Your task to perform on an android device: Open Chrome and go to settings Image 0: 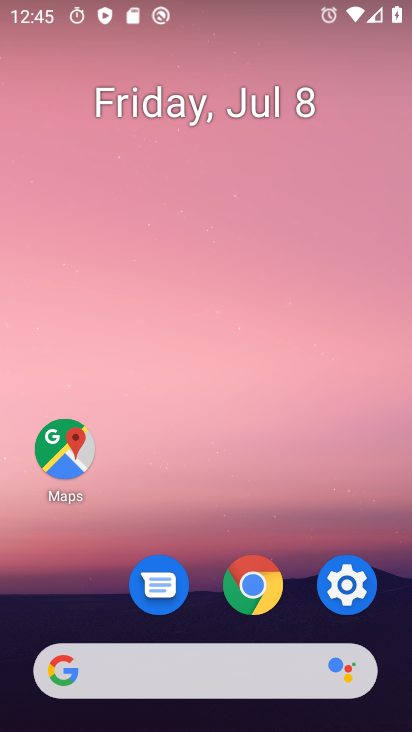
Step 0: click (275, 591)
Your task to perform on an android device: Open Chrome and go to settings Image 1: 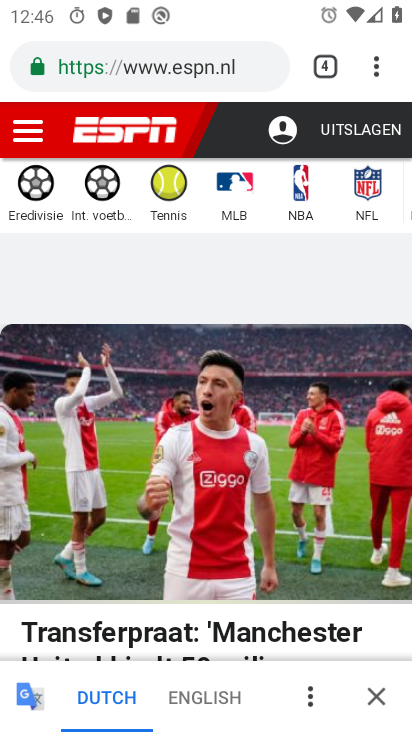
Step 1: click (377, 59)
Your task to perform on an android device: Open Chrome and go to settings Image 2: 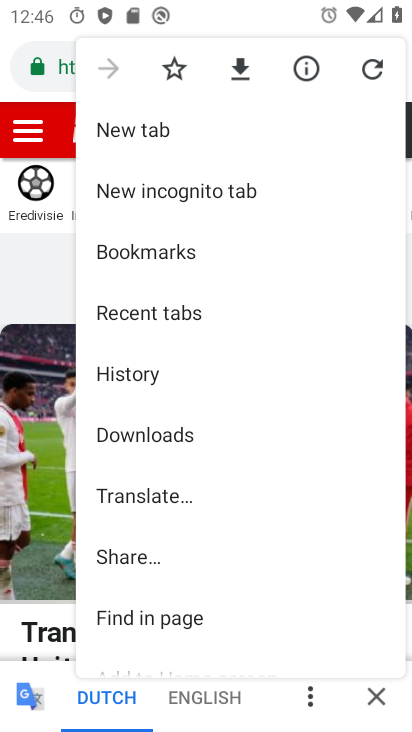
Step 2: drag from (280, 411) to (257, 290)
Your task to perform on an android device: Open Chrome and go to settings Image 3: 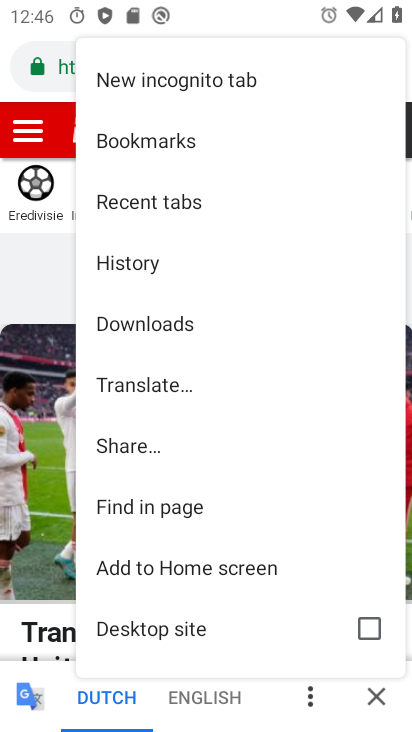
Step 3: drag from (155, 605) to (249, 411)
Your task to perform on an android device: Open Chrome and go to settings Image 4: 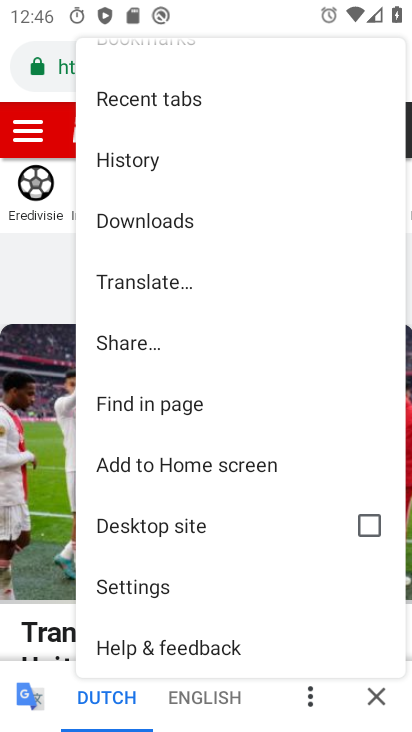
Step 4: click (172, 590)
Your task to perform on an android device: Open Chrome and go to settings Image 5: 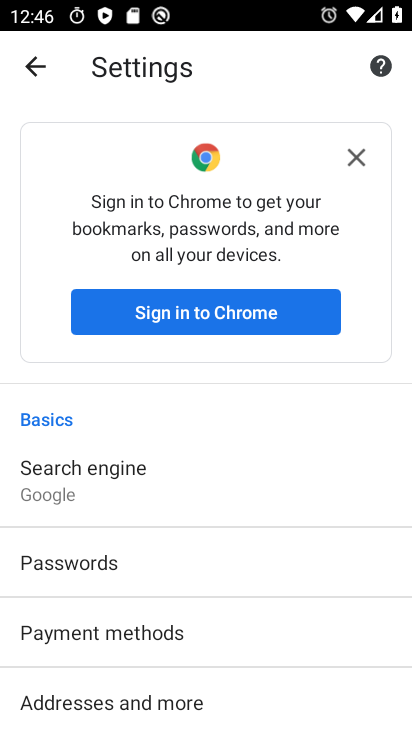
Step 5: task complete